Your task to perform on an android device: Go to wifi settings Image 0: 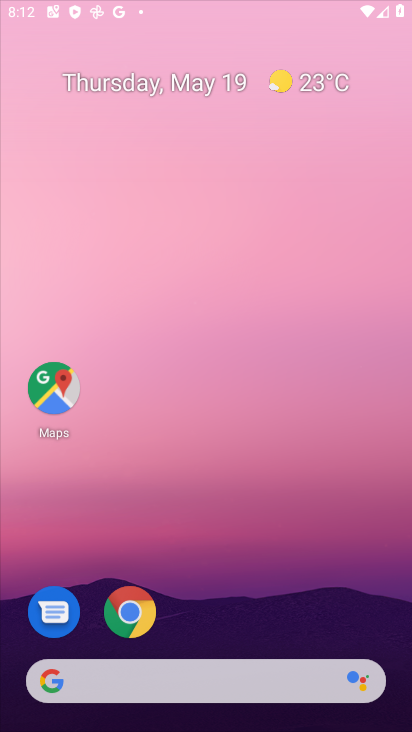
Step 0: drag from (294, 312) to (269, 151)
Your task to perform on an android device: Go to wifi settings Image 1: 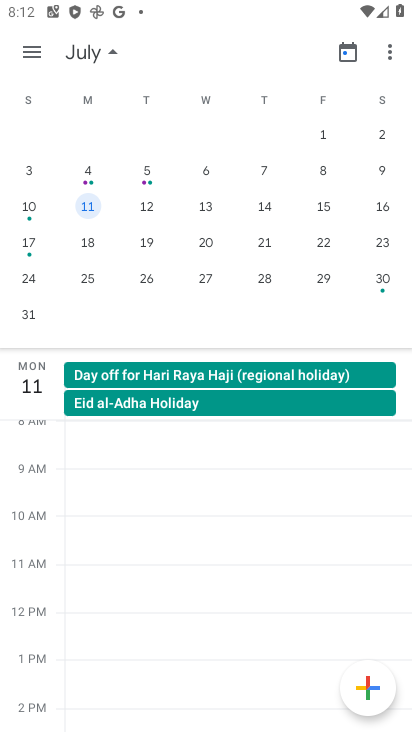
Step 1: press home button
Your task to perform on an android device: Go to wifi settings Image 2: 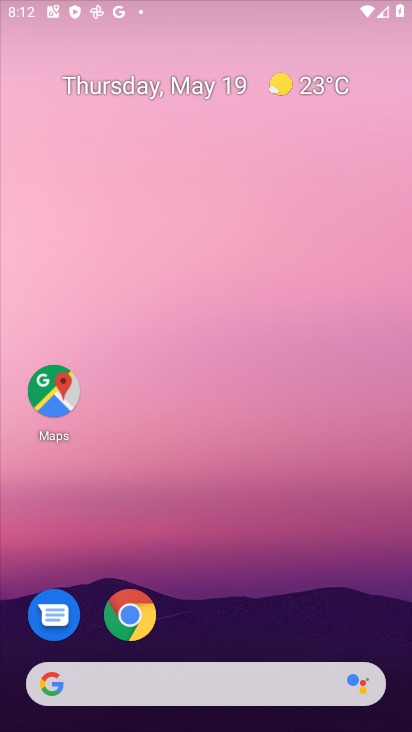
Step 2: drag from (351, 602) to (247, 34)
Your task to perform on an android device: Go to wifi settings Image 3: 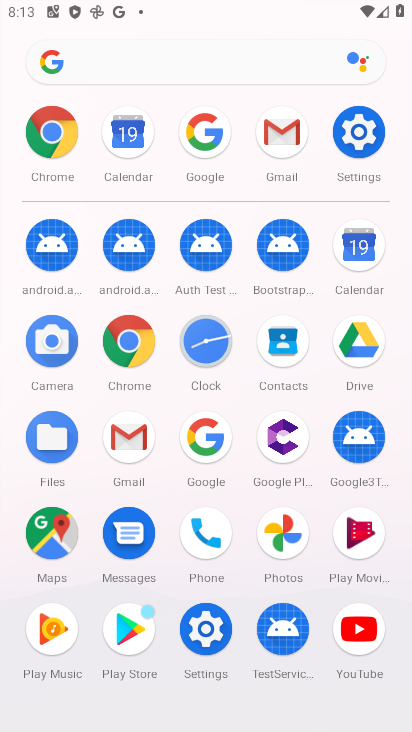
Step 3: click (190, 635)
Your task to perform on an android device: Go to wifi settings Image 4: 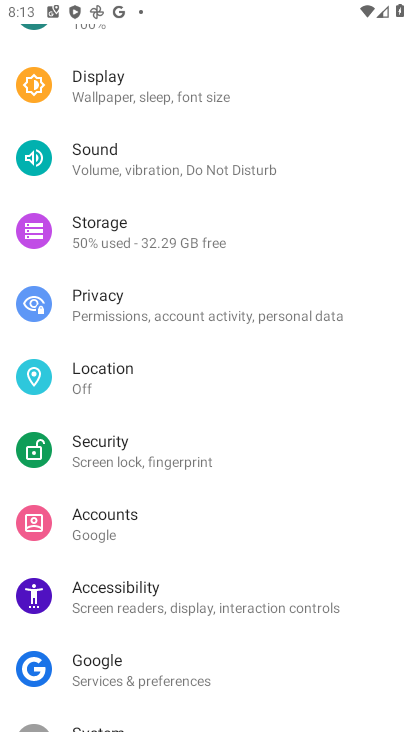
Step 4: drag from (184, 174) to (207, 659)
Your task to perform on an android device: Go to wifi settings Image 5: 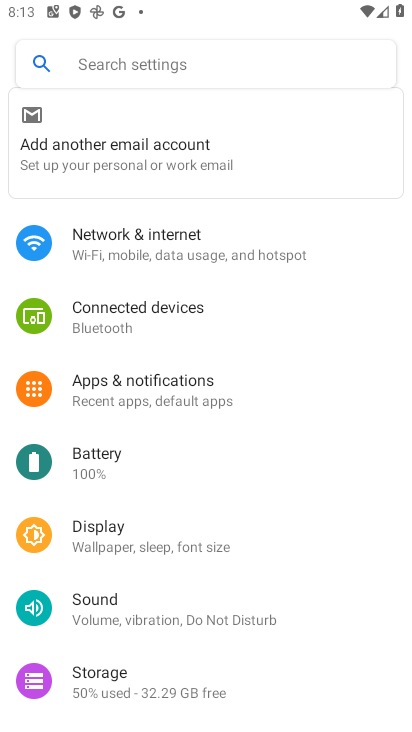
Step 5: click (205, 252)
Your task to perform on an android device: Go to wifi settings Image 6: 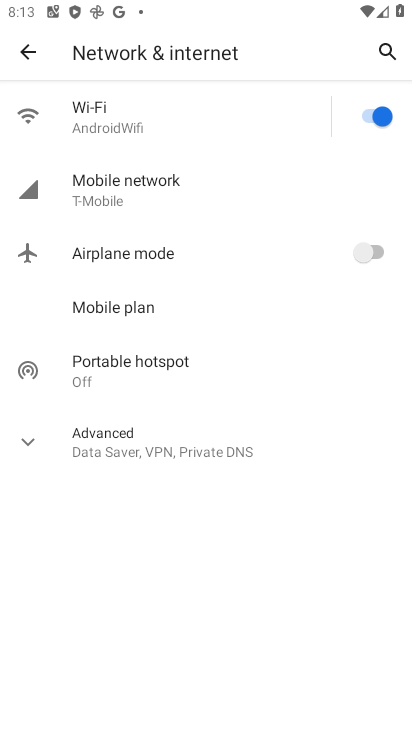
Step 6: click (169, 134)
Your task to perform on an android device: Go to wifi settings Image 7: 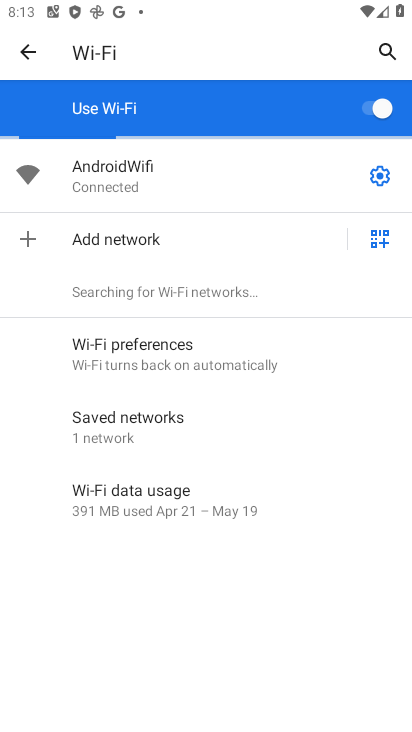
Step 7: task complete